Your task to perform on an android device: check android version Image 0: 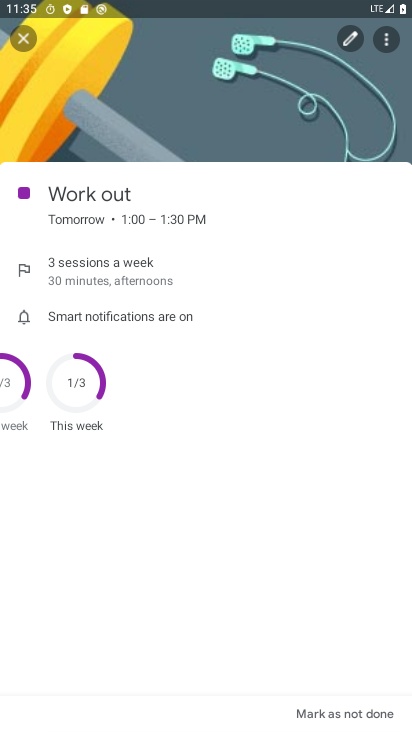
Step 0: press home button
Your task to perform on an android device: check android version Image 1: 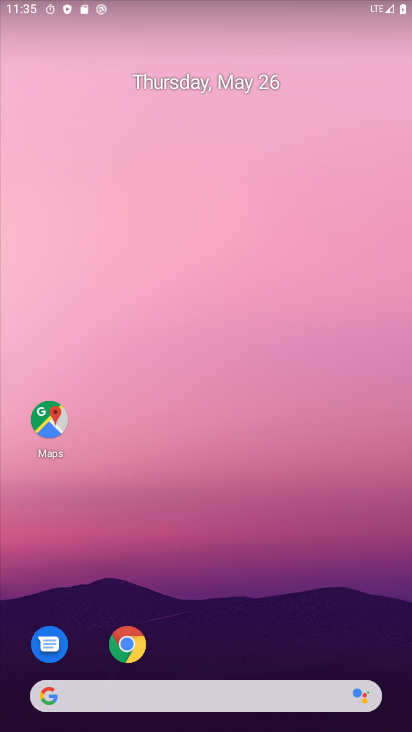
Step 1: drag from (124, 664) to (152, 58)
Your task to perform on an android device: check android version Image 2: 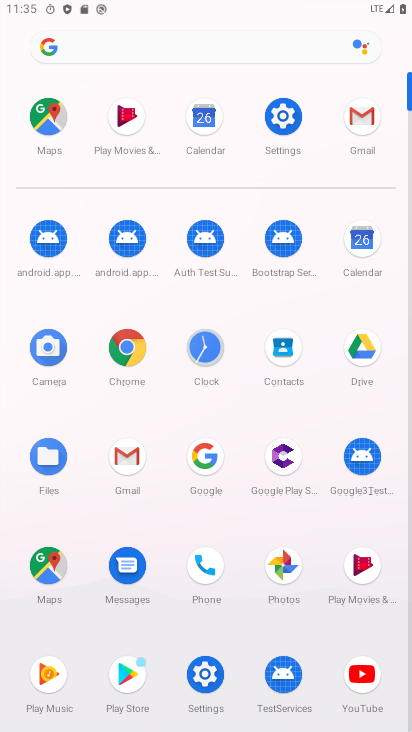
Step 2: click (276, 126)
Your task to perform on an android device: check android version Image 3: 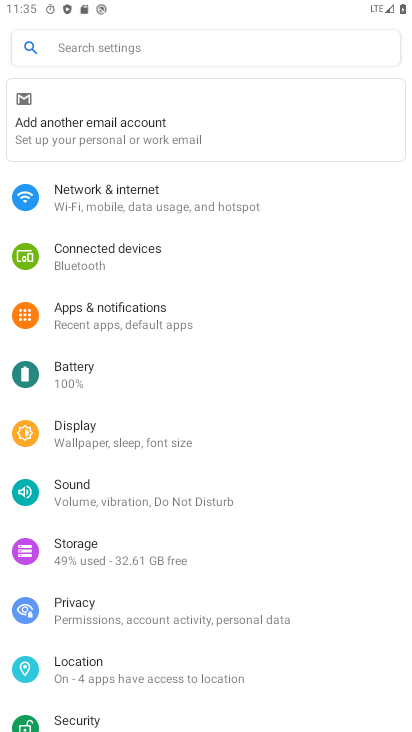
Step 3: drag from (236, 695) to (328, 168)
Your task to perform on an android device: check android version Image 4: 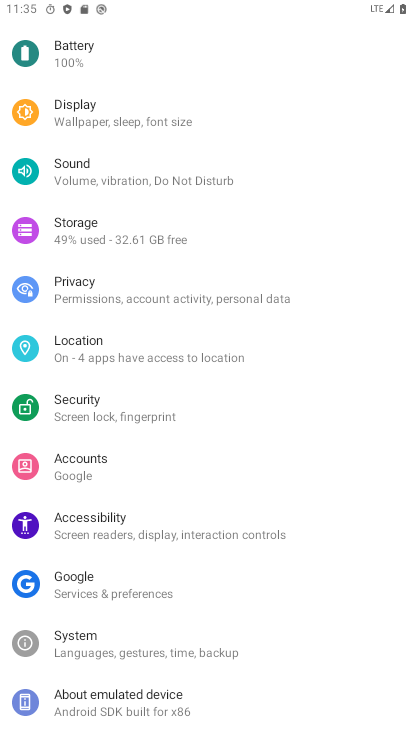
Step 4: click (123, 699)
Your task to perform on an android device: check android version Image 5: 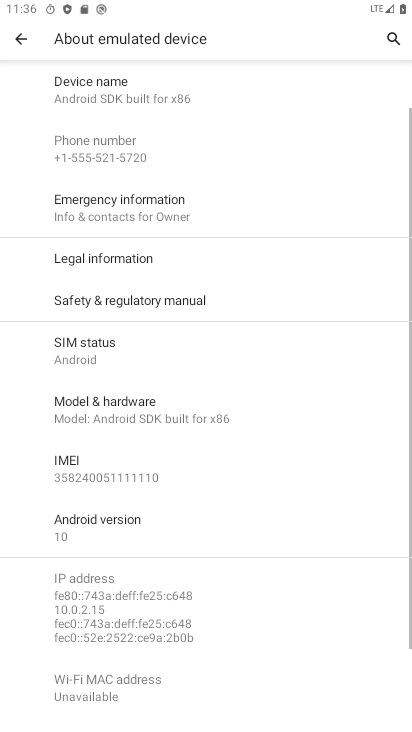
Step 5: task complete